Your task to perform on an android device: choose inbox layout in the gmail app Image 0: 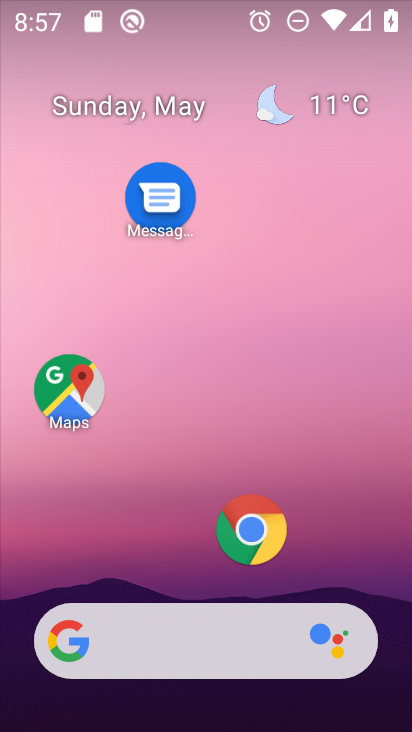
Step 0: drag from (199, 573) to (246, 49)
Your task to perform on an android device: choose inbox layout in the gmail app Image 1: 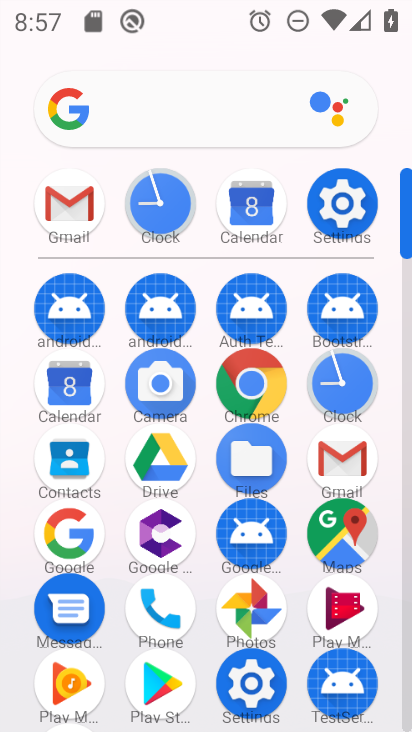
Step 1: click (64, 196)
Your task to perform on an android device: choose inbox layout in the gmail app Image 2: 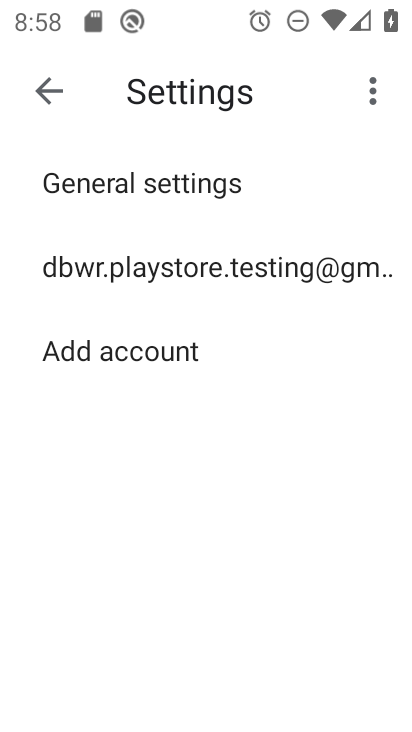
Step 2: click (196, 266)
Your task to perform on an android device: choose inbox layout in the gmail app Image 3: 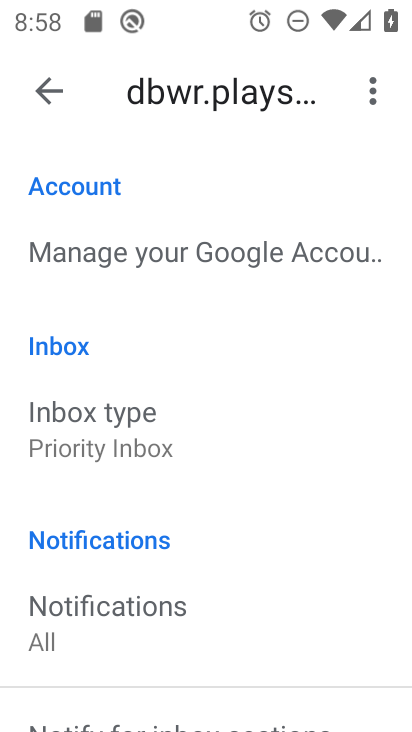
Step 3: click (174, 438)
Your task to perform on an android device: choose inbox layout in the gmail app Image 4: 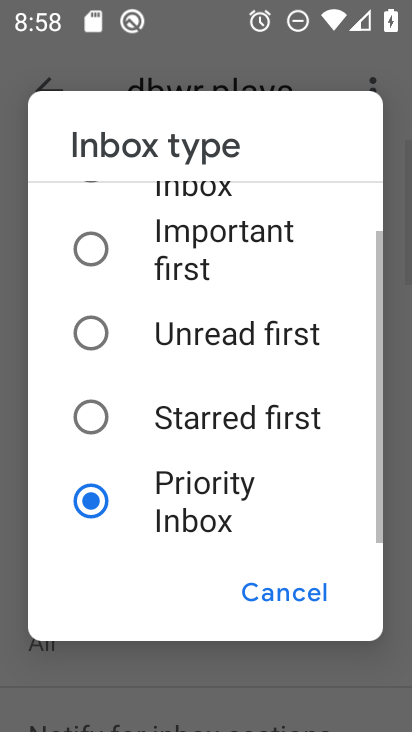
Step 4: drag from (122, 244) to (148, 522)
Your task to perform on an android device: choose inbox layout in the gmail app Image 5: 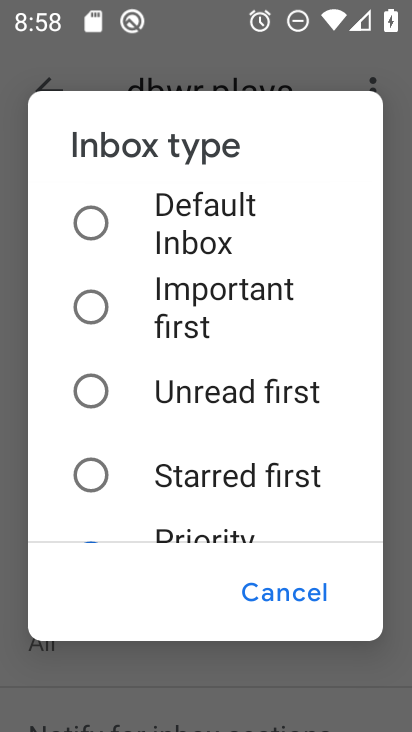
Step 5: click (89, 208)
Your task to perform on an android device: choose inbox layout in the gmail app Image 6: 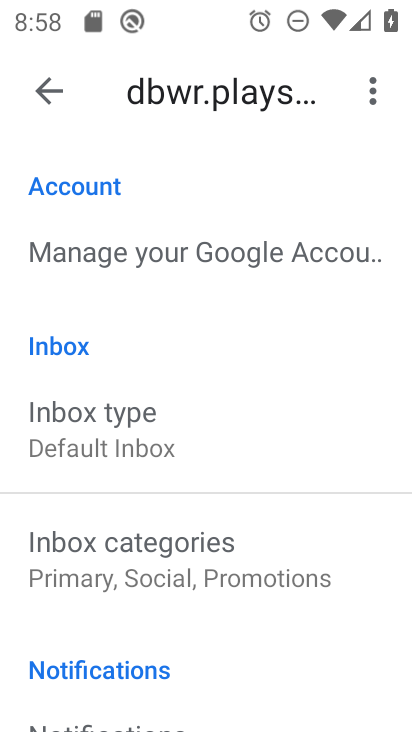
Step 6: task complete